Your task to perform on an android device: clear history in the chrome app Image 0: 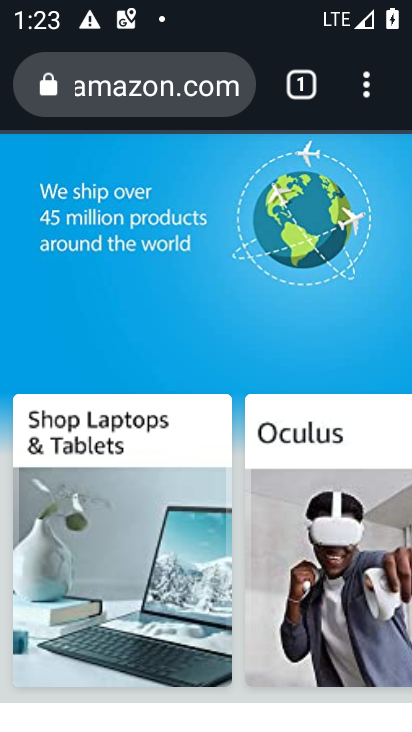
Step 0: click (363, 97)
Your task to perform on an android device: clear history in the chrome app Image 1: 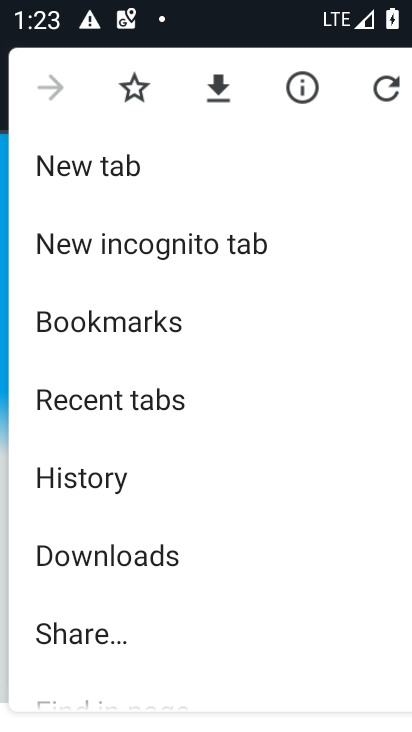
Step 1: click (105, 478)
Your task to perform on an android device: clear history in the chrome app Image 2: 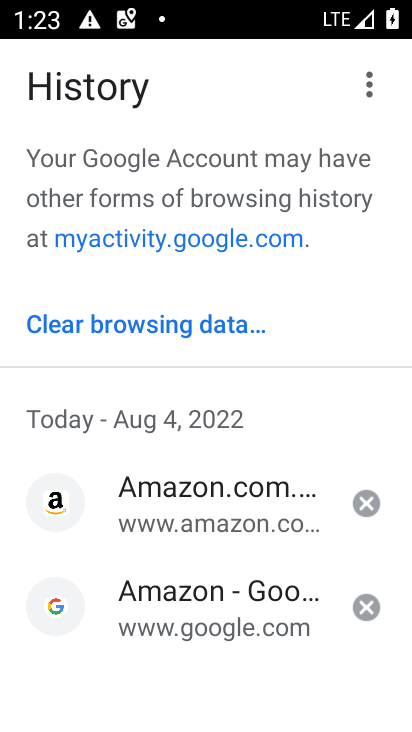
Step 2: click (133, 327)
Your task to perform on an android device: clear history in the chrome app Image 3: 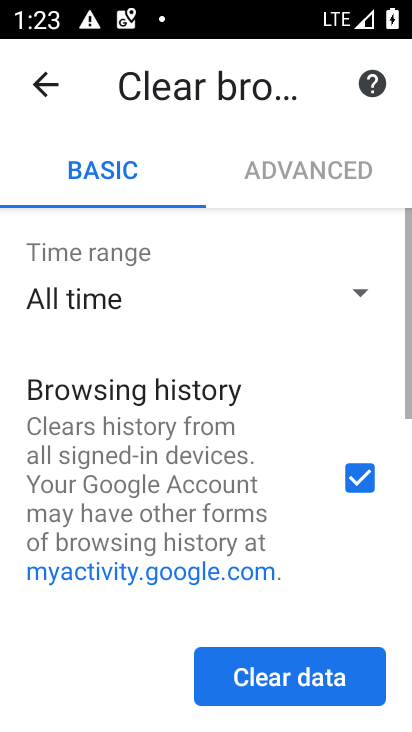
Step 3: click (237, 652)
Your task to perform on an android device: clear history in the chrome app Image 4: 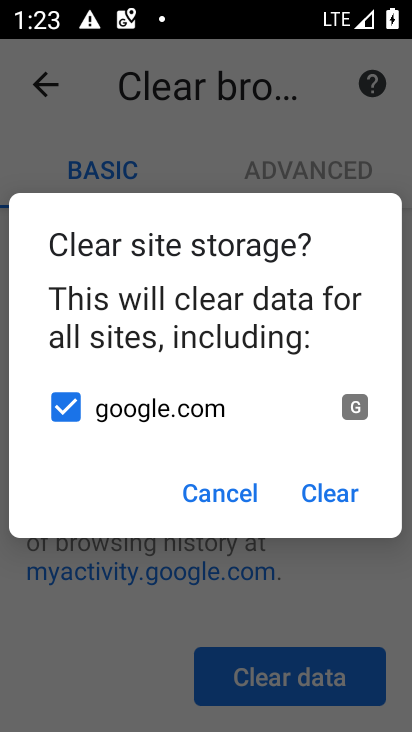
Step 4: click (338, 489)
Your task to perform on an android device: clear history in the chrome app Image 5: 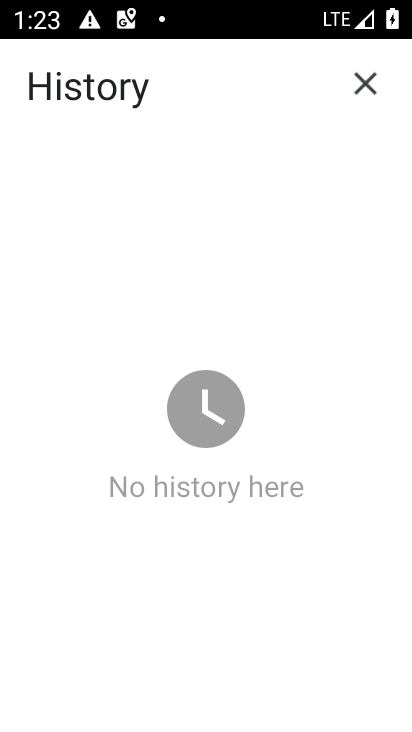
Step 5: task complete